Your task to perform on an android device: turn on priority inbox in the gmail app Image 0: 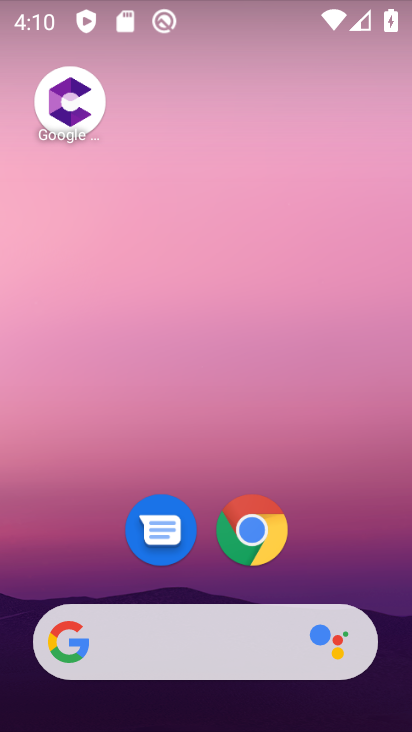
Step 0: drag from (369, 556) to (366, 126)
Your task to perform on an android device: turn on priority inbox in the gmail app Image 1: 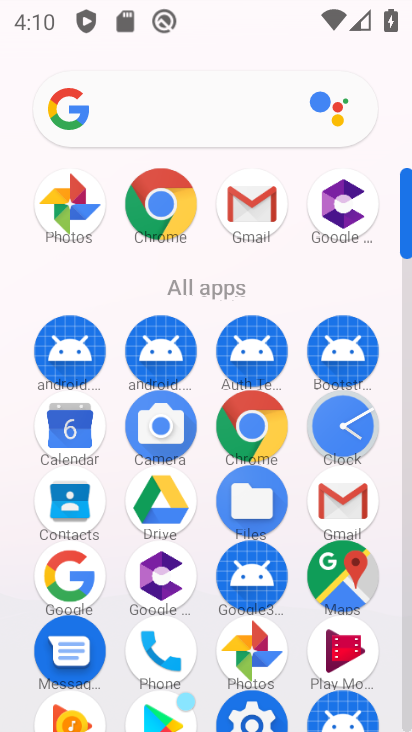
Step 1: click (244, 191)
Your task to perform on an android device: turn on priority inbox in the gmail app Image 2: 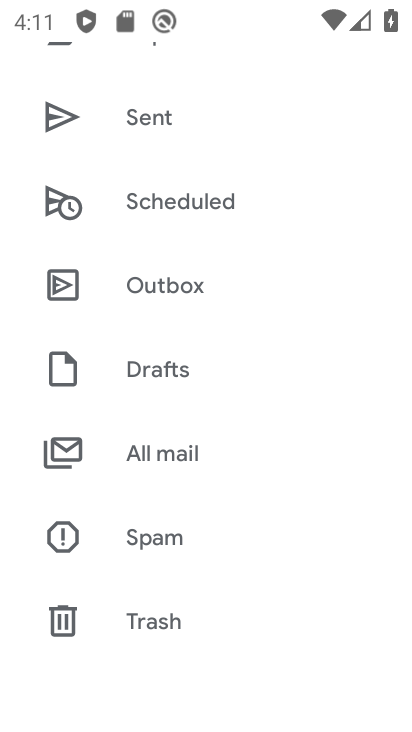
Step 2: drag from (244, 191) to (171, 591)
Your task to perform on an android device: turn on priority inbox in the gmail app Image 3: 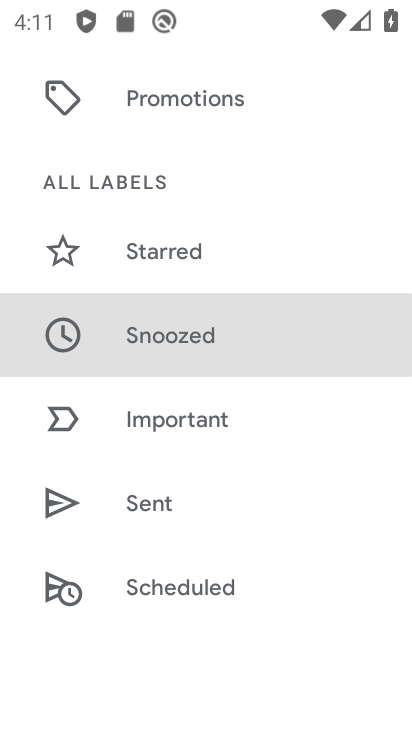
Step 3: drag from (253, 245) to (244, 622)
Your task to perform on an android device: turn on priority inbox in the gmail app Image 4: 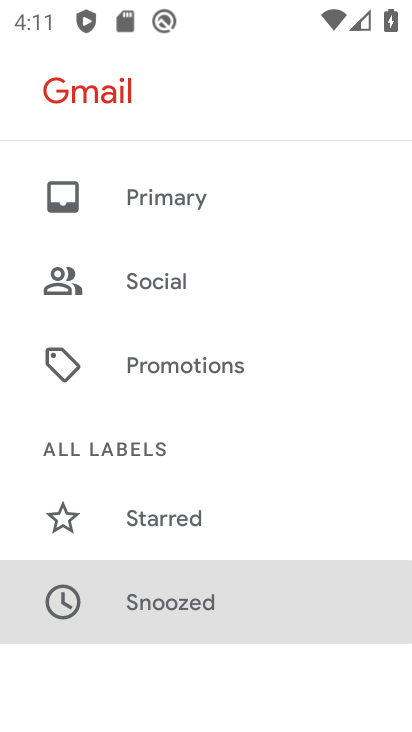
Step 4: drag from (293, 571) to (257, 224)
Your task to perform on an android device: turn on priority inbox in the gmail app Image 5: 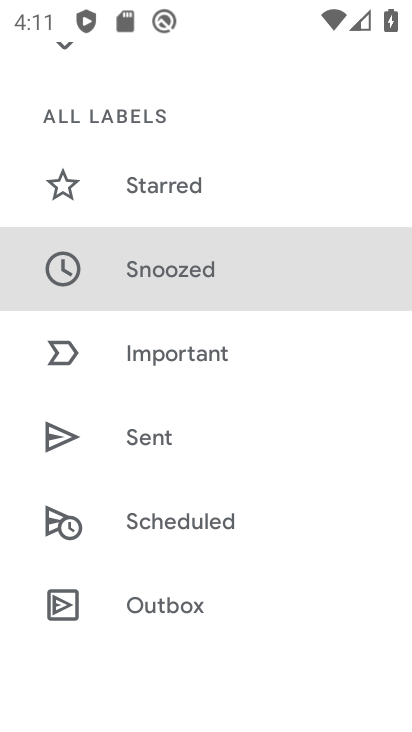
Step 5: drag from (207, 606) to (262, 241)
Your task to perform on an android device: turn on priority inbox in the gmail app Image 6: 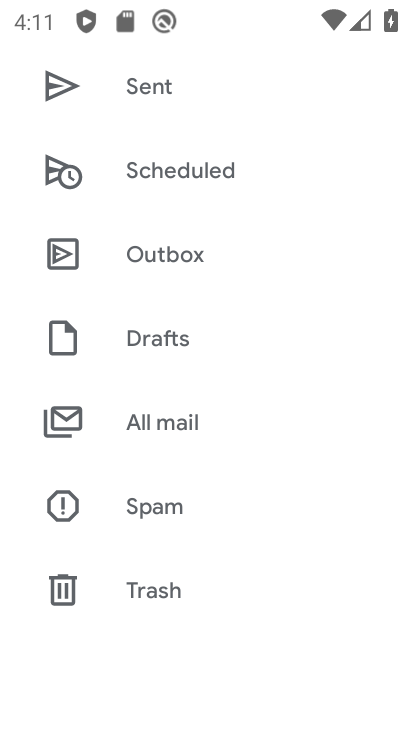
Step 6: drag from (240, 149) to (214, 622)
Your task to perform on an android device: turn on priority inbox in the gmail app Image 7: 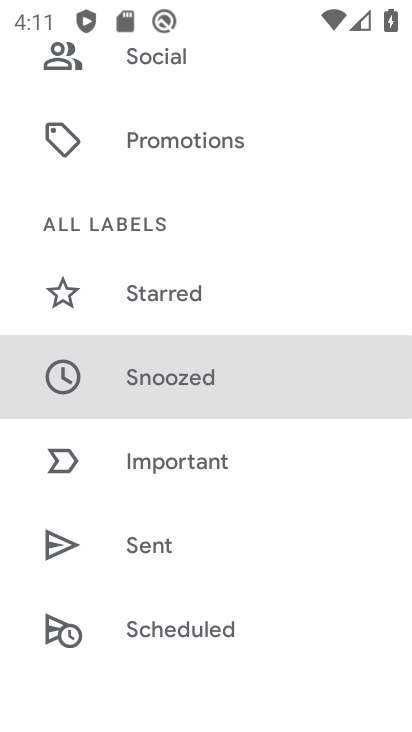
Step 7: drag from (291, 121) to (268, 591)
Your task to perform on an android device: turn on priority inbox in the gmail app Image 8: 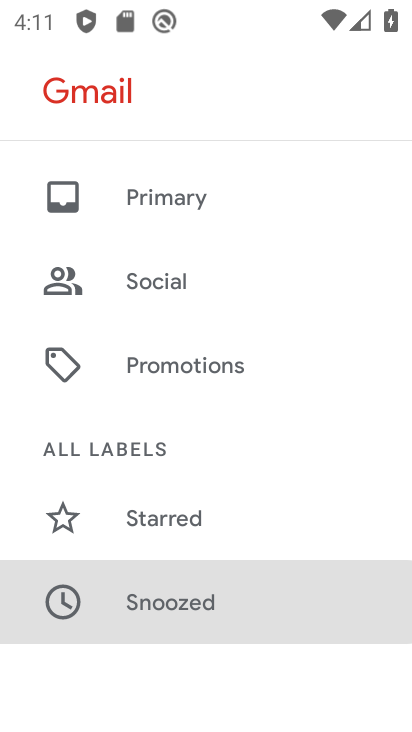
Step 8: drag from (267, 501) to (269, 233)
Your task to perform on an android device: turn on priority inbox in the gmail app Image 9: 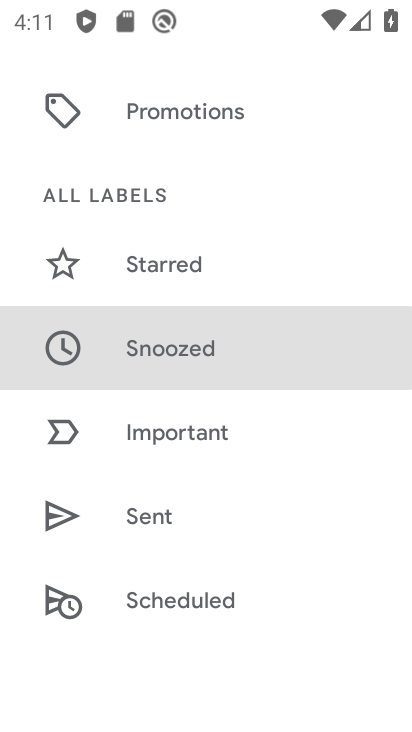
Step 9: drag from (199, 592) to (190, 259)
Your task to perform on an android device: turn on priority inbox in the gmail app Image 10: 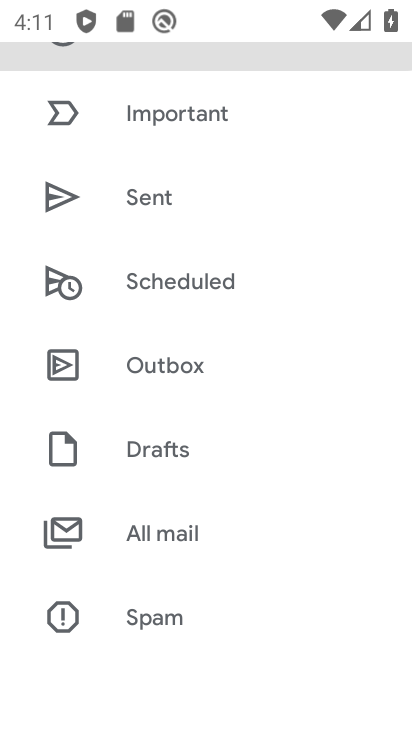
Step 10: drag from (219, 618) to (244, 241)
Your task to perform on an android device: turn on priority inbox in the gmail app Image 11: 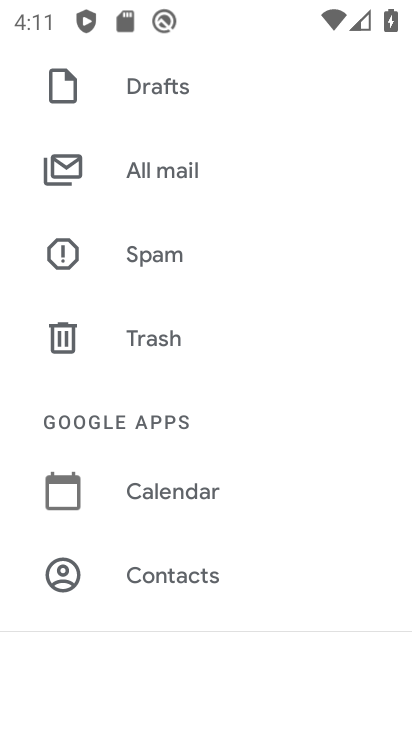
Step 11: drag from (217, 578) to (217, 245)
Your task to perform on an android device: turn on priority inbox in the gmail app Image 12: 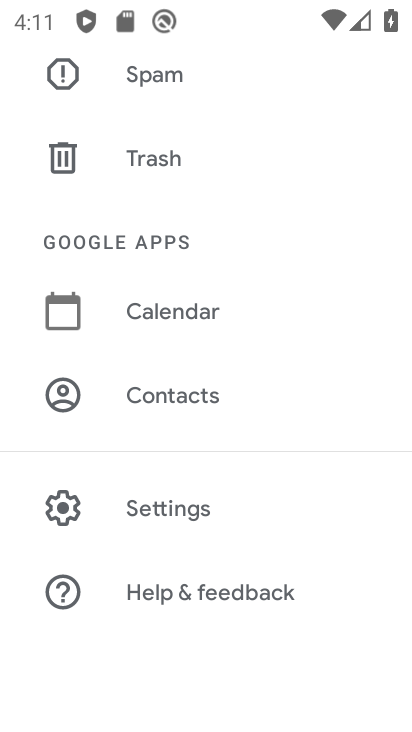
Step 12: click (165, 522)
Your task to perform on an android device: turn on priority inbox in the gmail app Image 13: 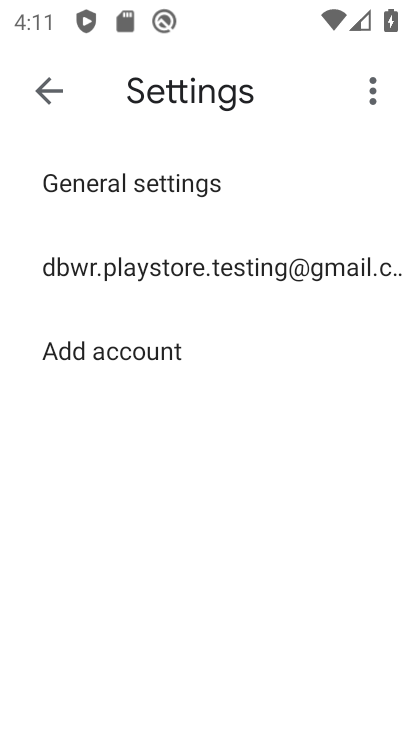
Step 13: click (111, 266)
Your task to perform on an android device: turn on priority inbox in the gmail app Image 14: 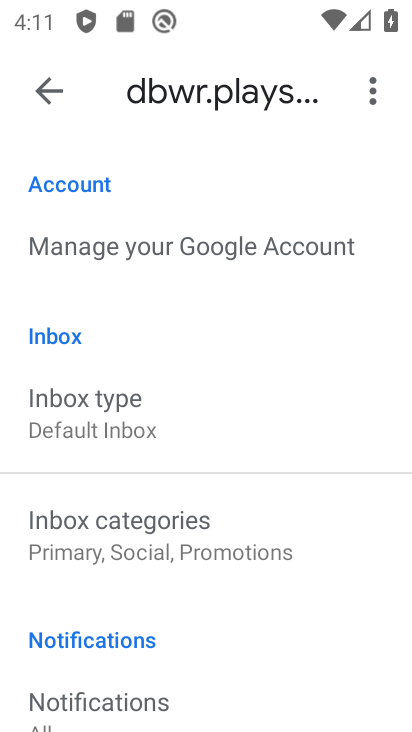
Step 14: click (99, 434)
Your task to perform on an android device: turn on priority inbox in the gmail app Image 15: 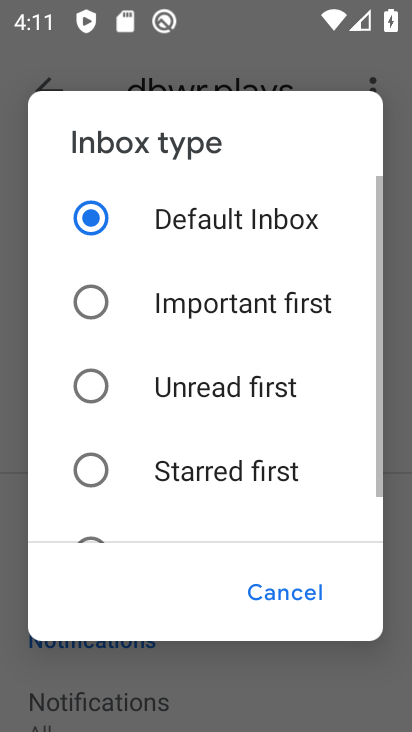
Step 15: drag from (108, 516) to (140, 242)
Your task to perform on an android device: turn on priority inbox in the gmail app Image 16: 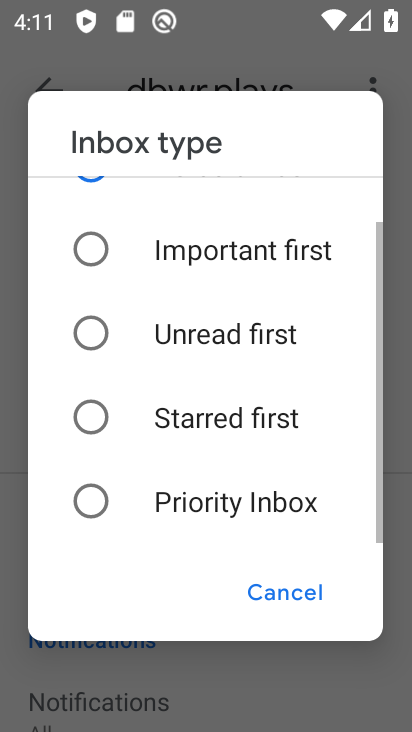
Step 16: click (100, 515)
Your task to perform on an android device: turn on priority inbox in the gmail app Image 17: 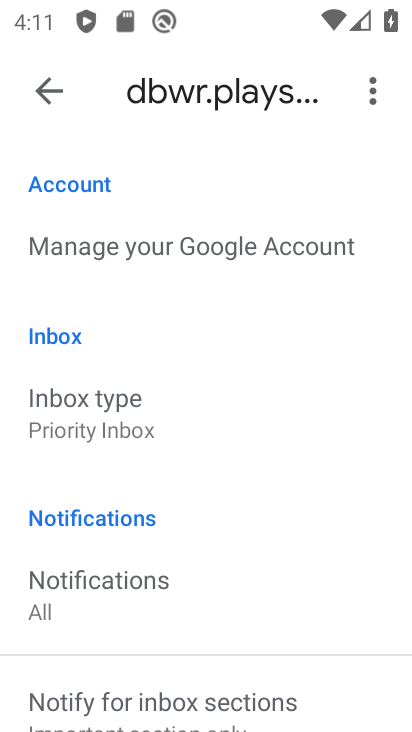
Step 17: task complete